Your task to perform on an android device: turn off smart reply in the gmail app Image 0: 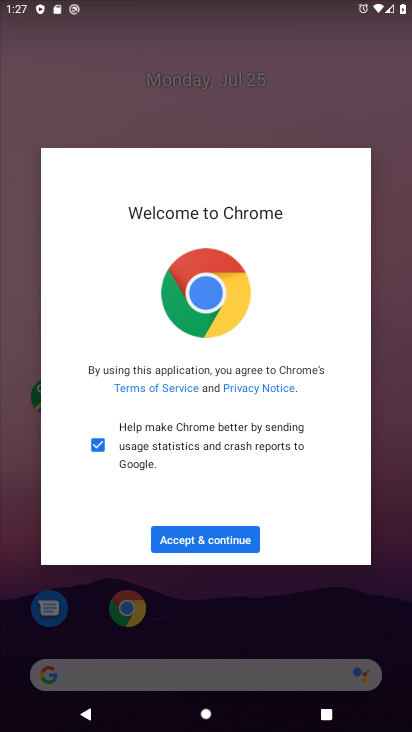
Step 0: press home button
Your task to perform on an android device: turn off smart reply in the gmail app Image 1: 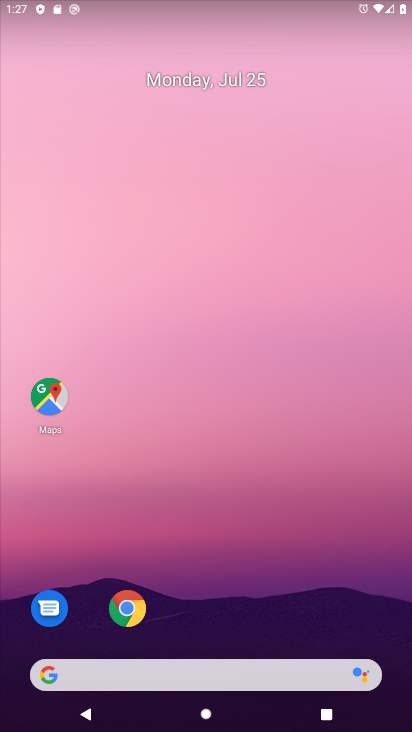
Step 1: drag from (253, 455) to (226, 3)
Your task to perform on an android device: turn off smart reply in the gmail app Image 2: 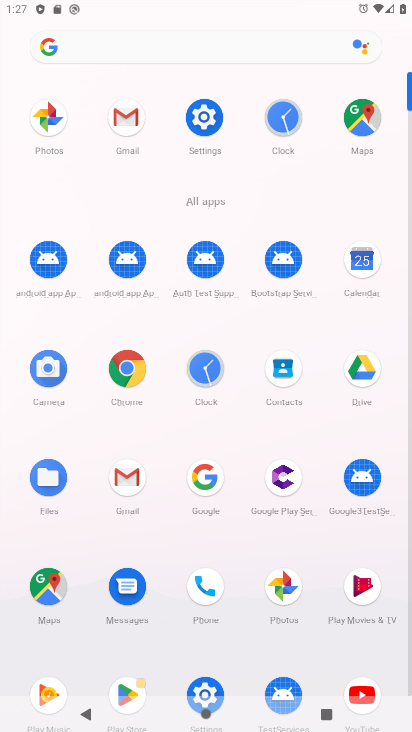
Step 2: click (126, 114)
Your task to perform on an android device: turn off smart reply in the gmail app Image 3: 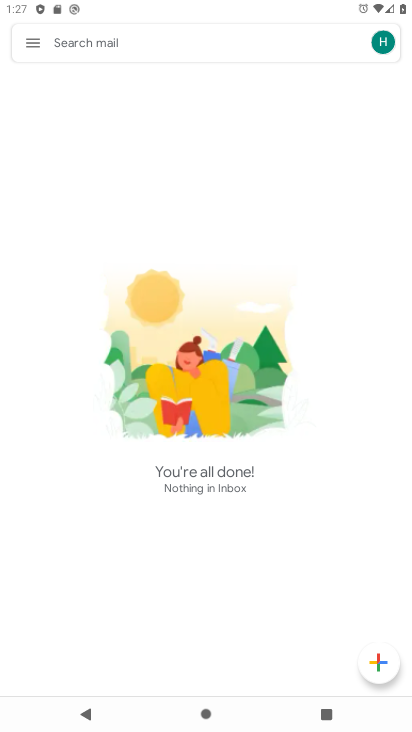
Step 3: click (36, 49)
Your task to perform on an android device: turn off smart reply in the gmail app Image 4: 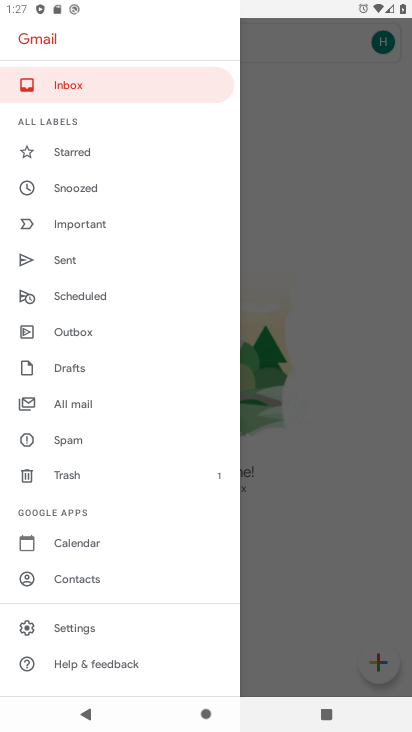
Step 4: click (57, 628)
Your task to perform on an android device: turn off smart reply in the gmail app Image 5: 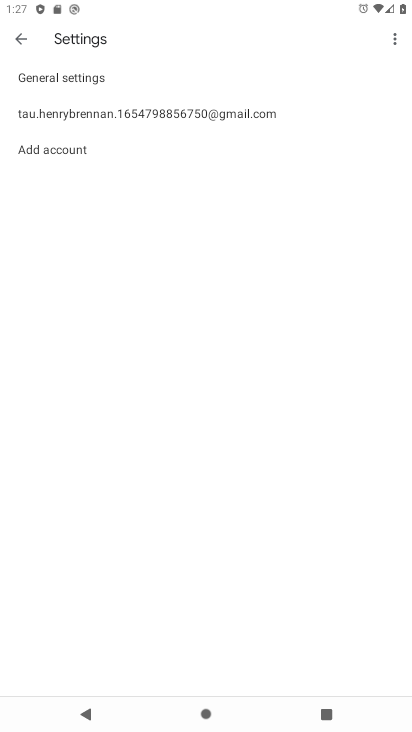
Step 5: click (143, 121)
Your task to perform on an android device: turn off smart reply in the gmail app Image 6: 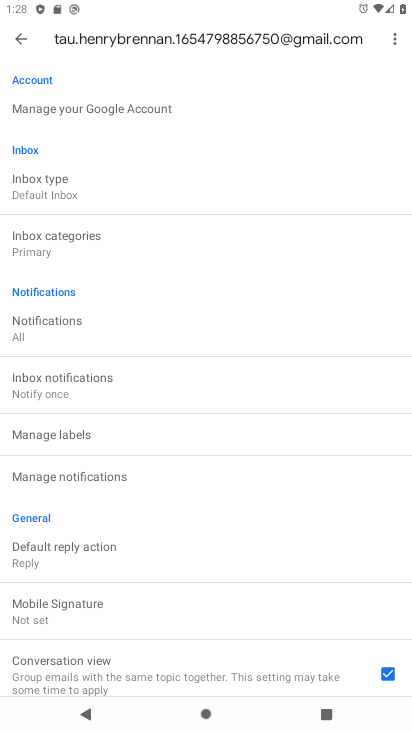
Step 6: drag from (189, 321) to (221, 62)
Your task to perform on an android device: turn off smart reply in the gmail app Image 7: 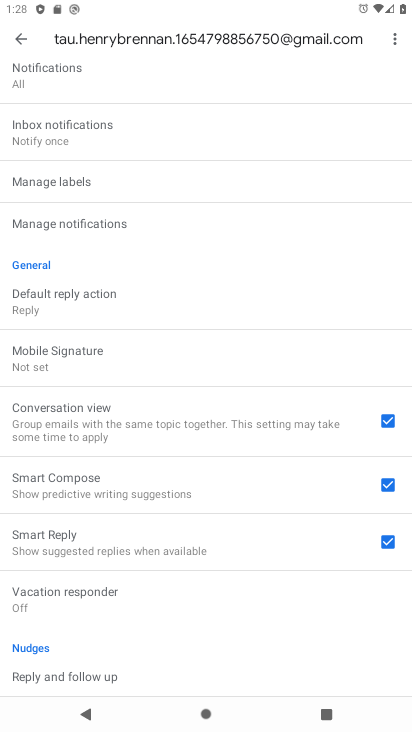
Step 7: click (389, 542)
Your task to perform on an android device: turn off smart reply in the gmail app Image 8: 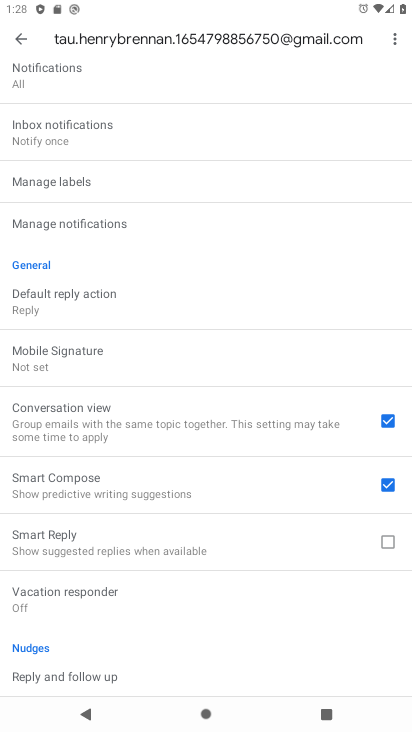
Step 8: task complete